Your task to perform on an android device: Go to notification settings Image 0: 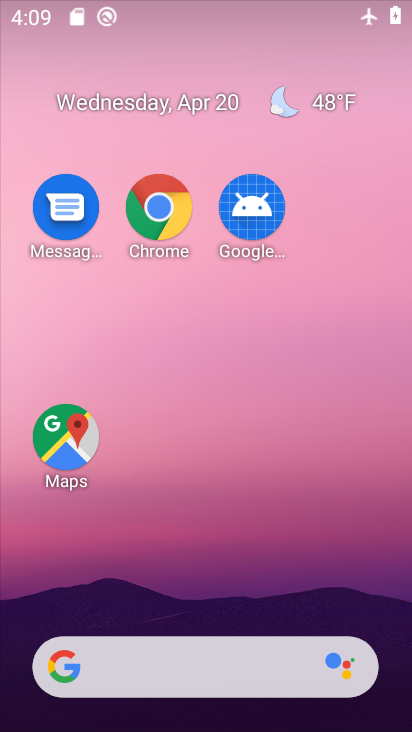
Step 0: drag from (238, 414) to (387, 21)
Your task to perform on an android device: Go to notification settings Image 1: 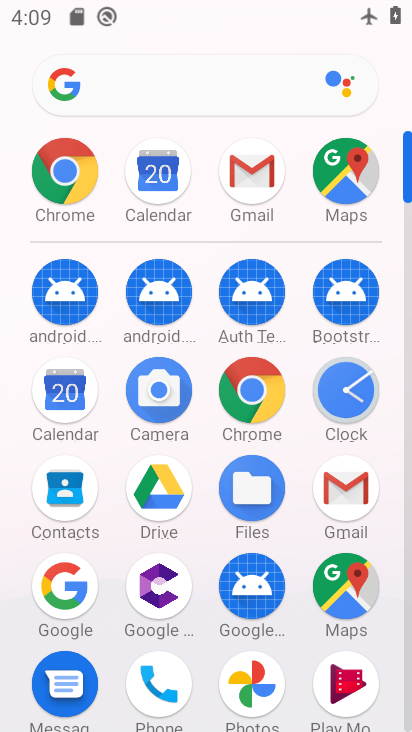
Step 1: drag from (268, 466) to (405, 1)
Your task to perform on an android device: Go to notification settings Image 2: 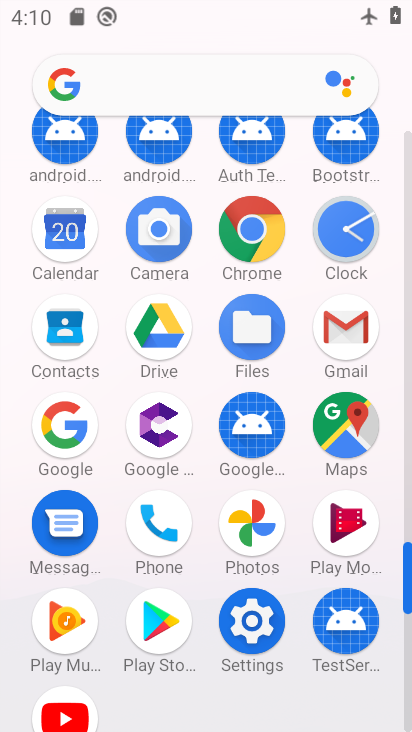
Step 2: click (274, 651)
Your task to perform on an android device: Go to notification settings Image 3: 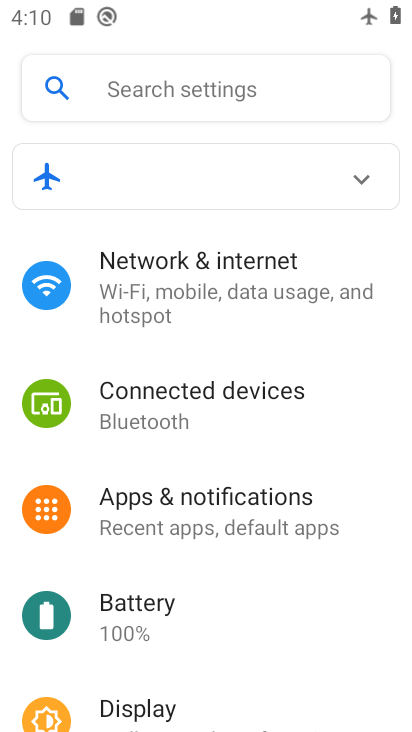
Step 3: click (223, 517)
Your task to perform on an android device: Go to notification settings Image 4: 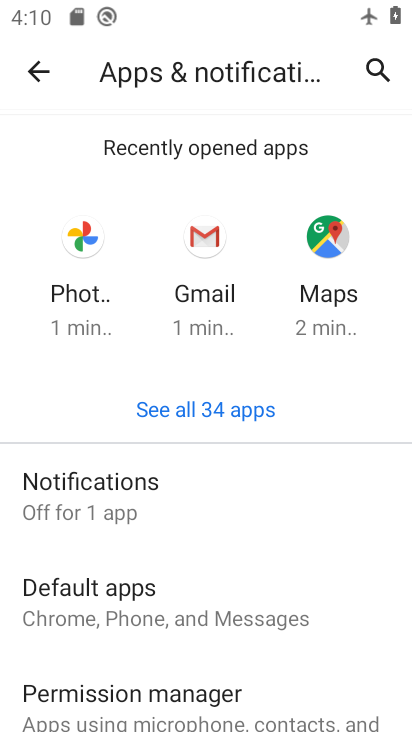
Step 4: click (198, 529)
Your task to perform on an android device: Go to notification settings Image 5: 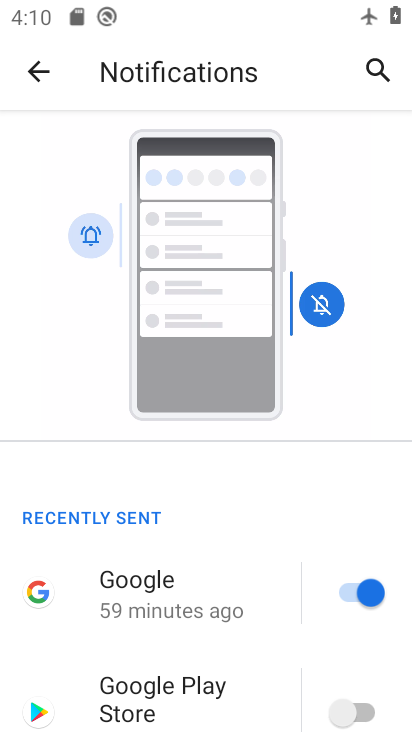
Step 5: task complete